Your task to perform on an android device: Search for "lg ultragear" on target.com, select the first entry, and add it to the cart. Image 0: 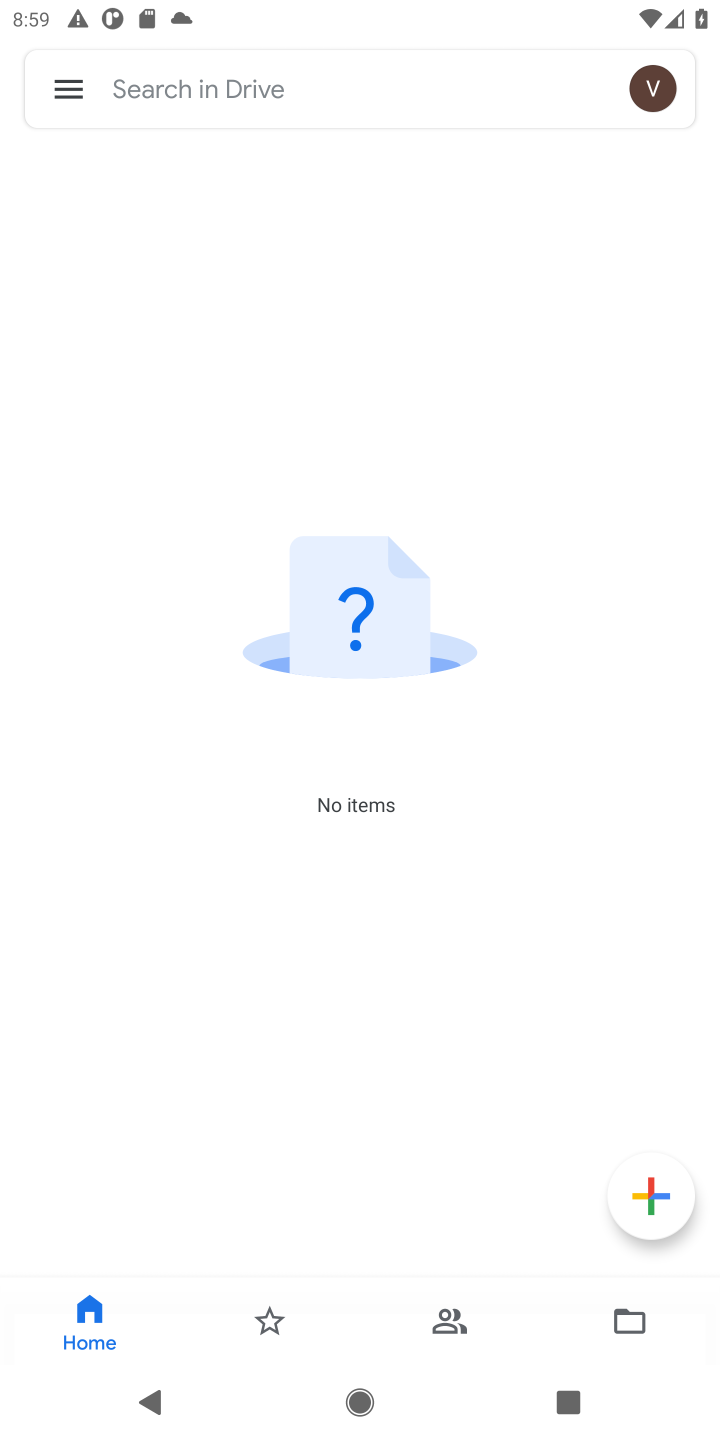
Step 0: press home button
Your task to perform on an android device: Search for "lg ultragear" on target.com, select the first entry, and add it to the cart. Image 1: 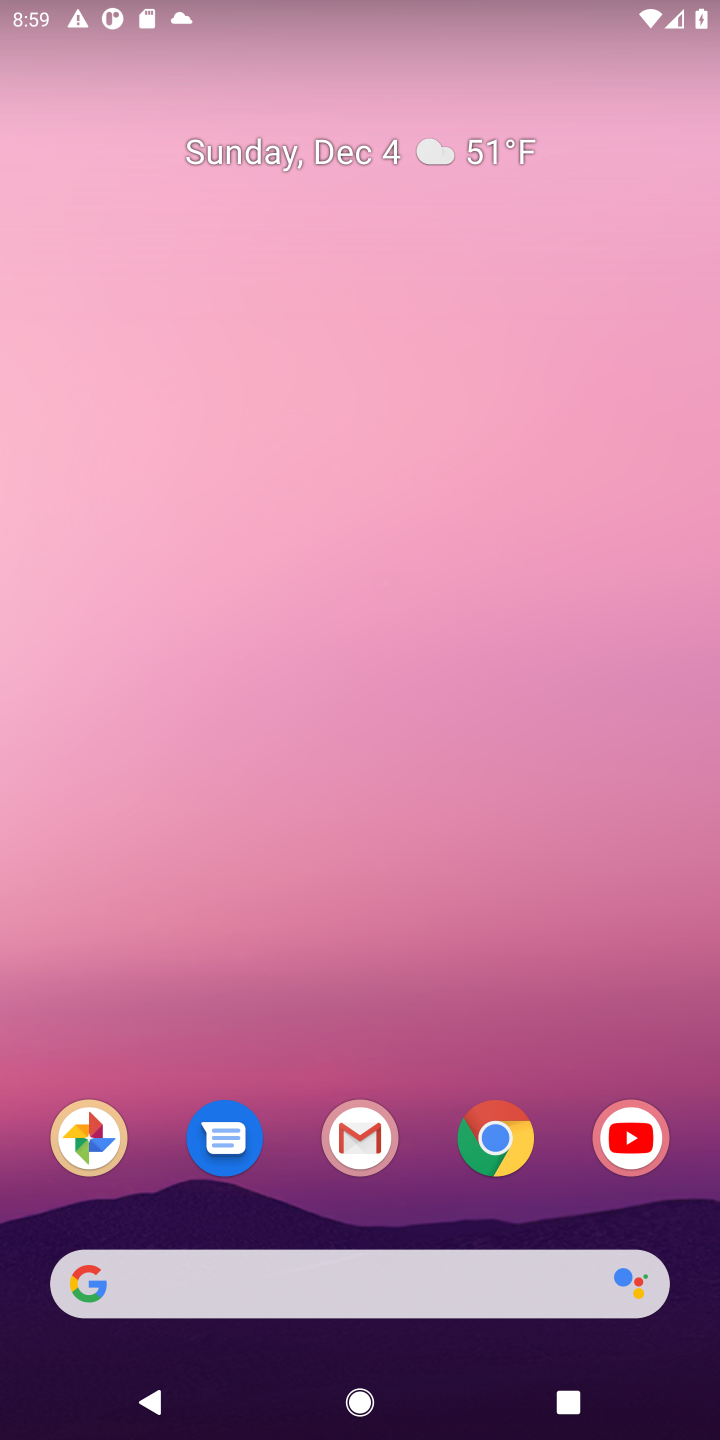
Step 1: click (504, 1130)
Your task to perform on an android device: Search for "lg ultragear" on target.com, select the first entry, and add it to the cart. Image 2: 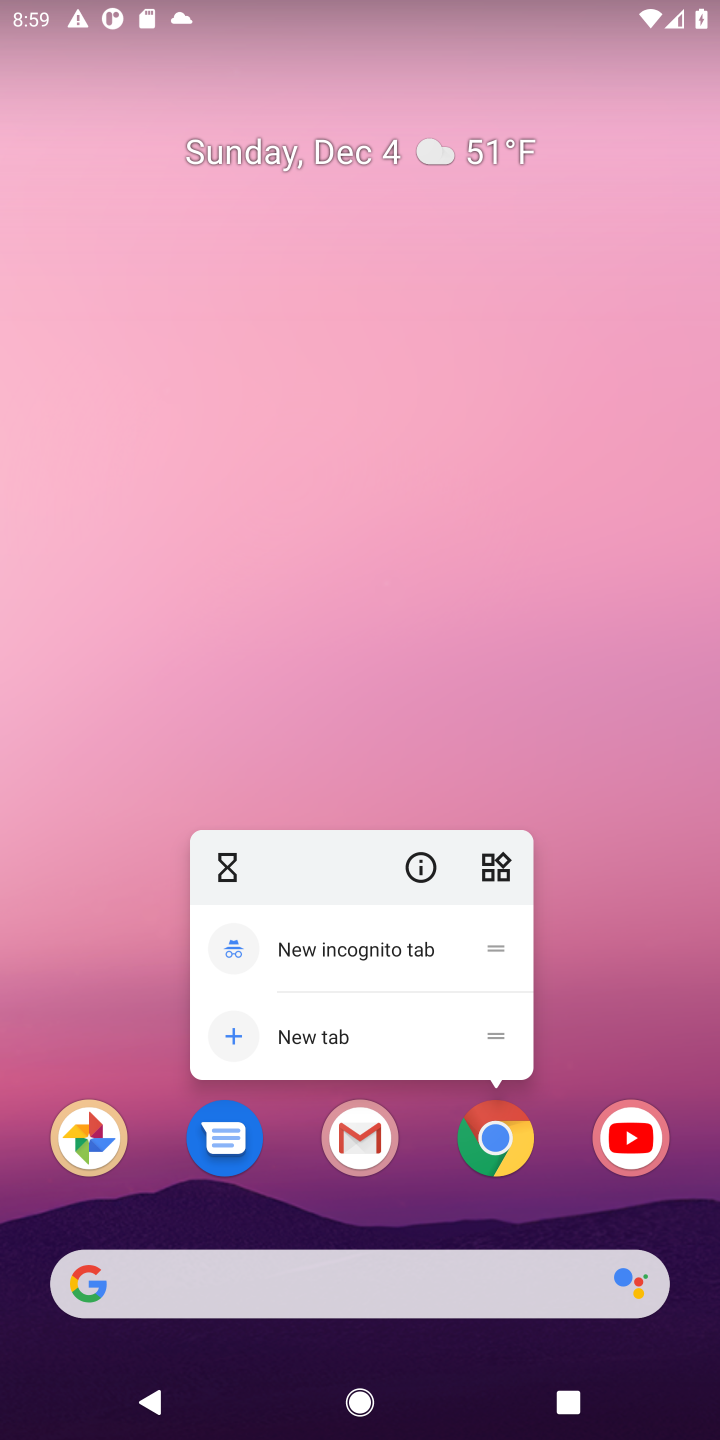
Step 2: click (504, 1130)
Your task to perform on an android device: Search for "lg ultragear" on target.com, select the first entry, and add it to the cart. Image 3: 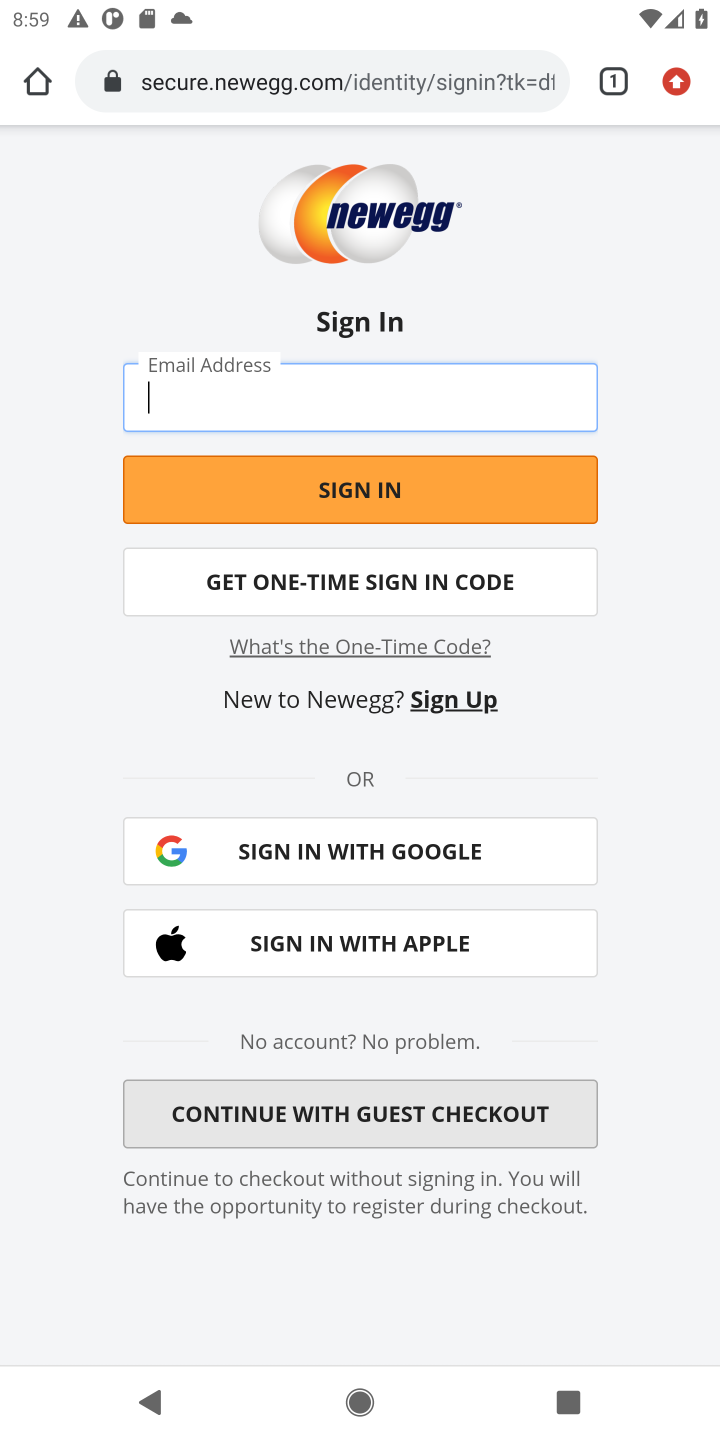
Step 3: click (385, 79)
Your task to perform on an android device: Search for "lg ultragear" on target.com, select the first entry, and add it to the cart. Image 4: 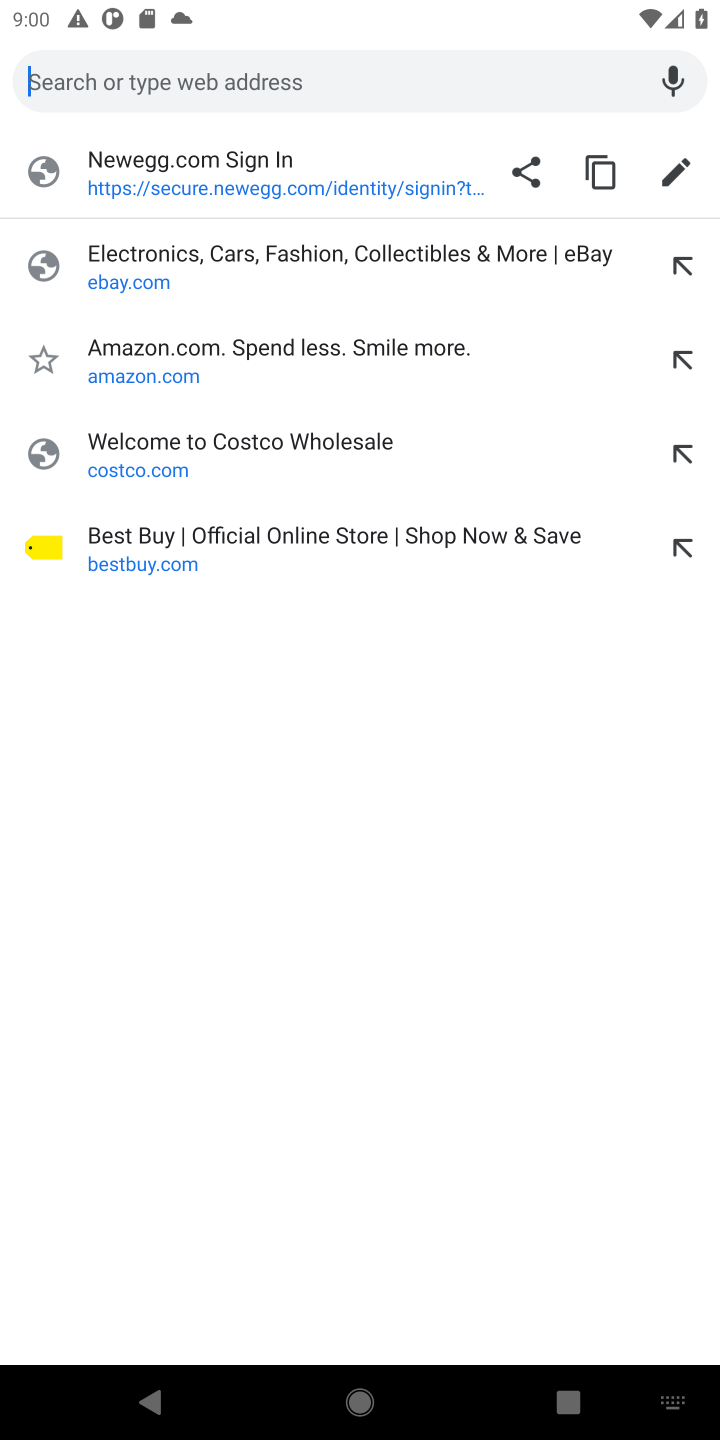
Step 4: type "target.com"
Your task to perform on an android device: Search for "lg ultragear" on target.com, select the first entry, and add it to the cart. Image 5: 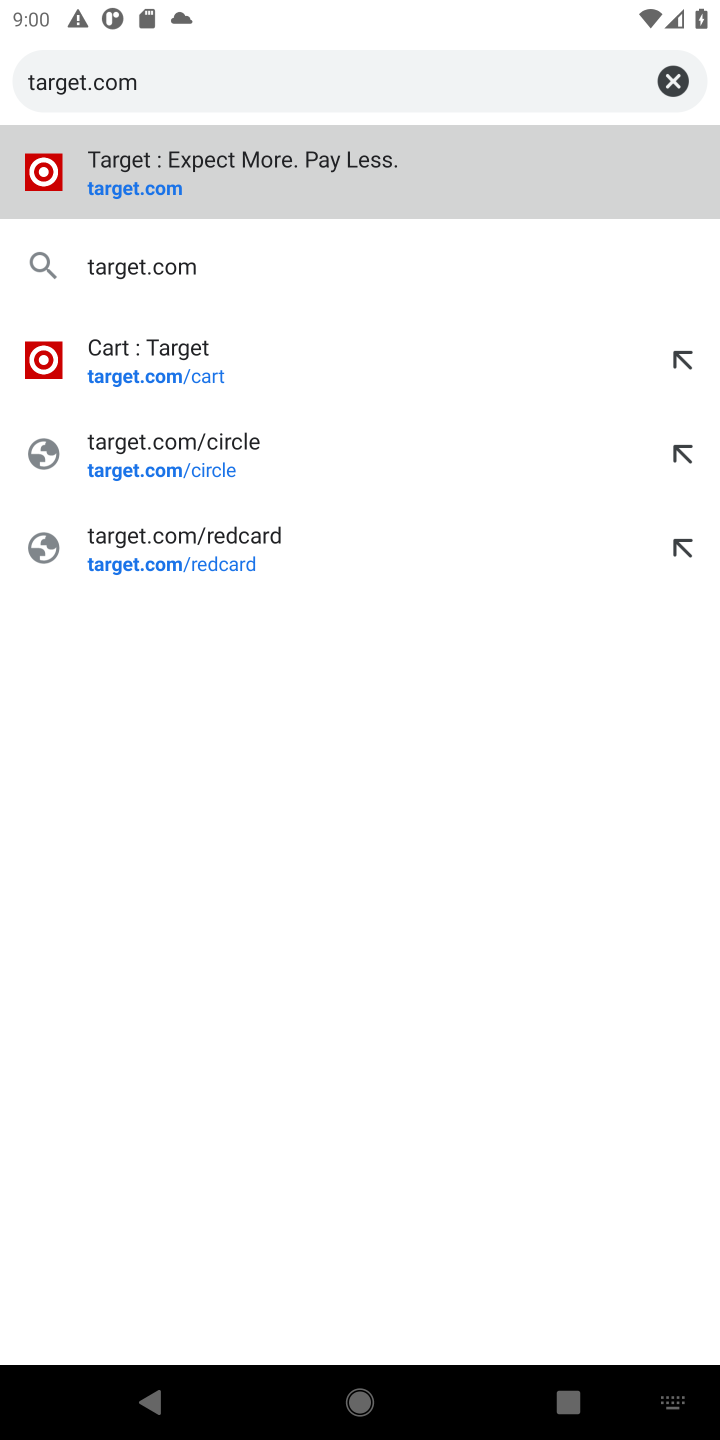
Step 5: press enter
Your task to perform on an android device: Search for "lg ultragear" on target.com, select the first entry, and add it to the cart. Image 6: 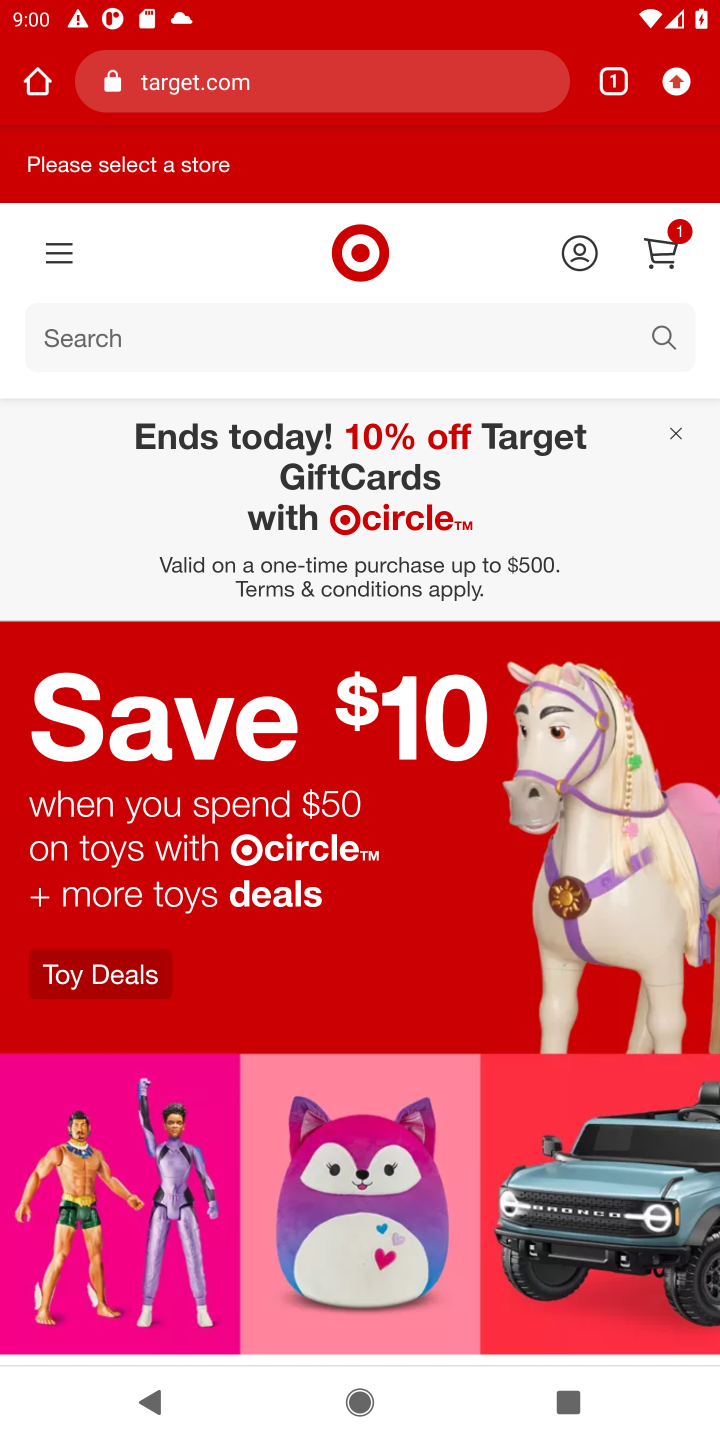
Step 6: click (675, 335)
Your task to perform on an android device: Search for "lg ultragear" on target.com, select the first entry, and add it to the cart. Image 7: 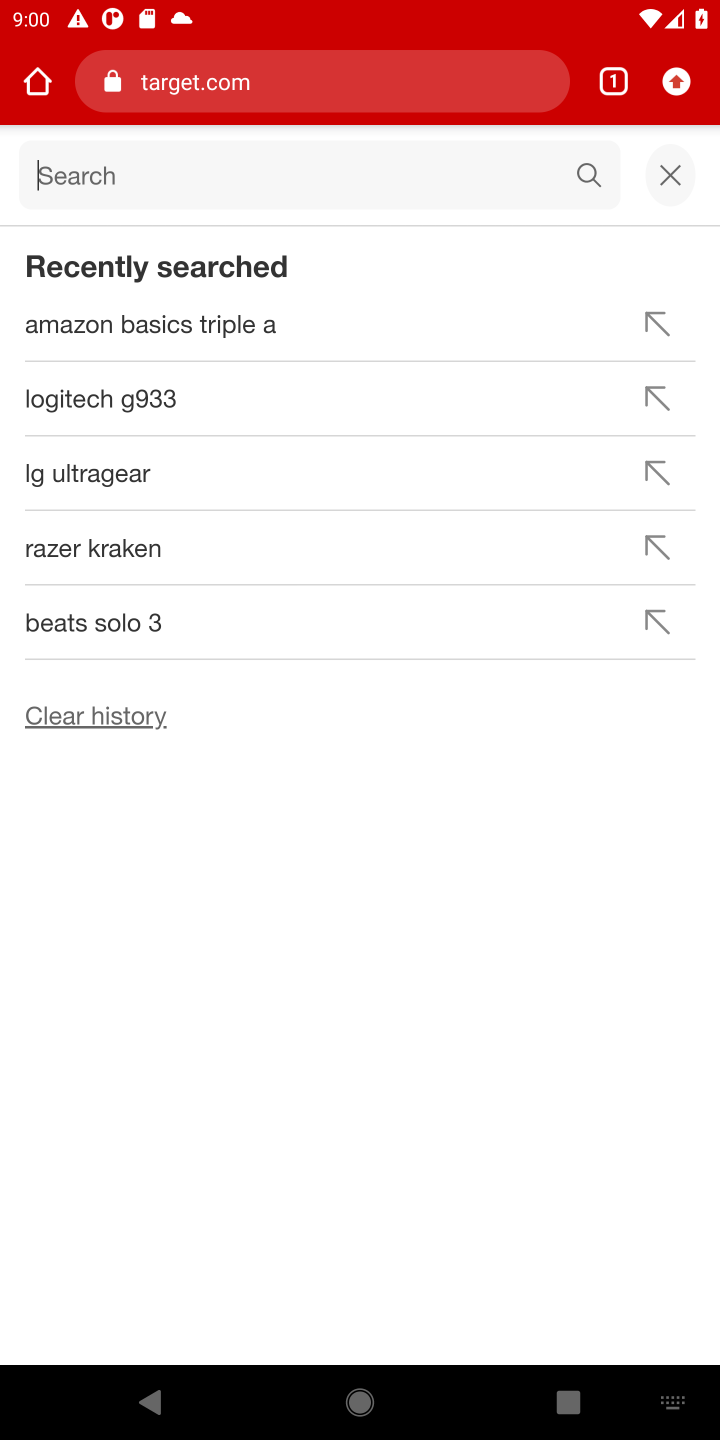
Step 7: type "lg ultragear"
Your task to perform on an android device: Search for "lg ultragear" on target.com, select the first entry, and add it to the cart. Image 8: 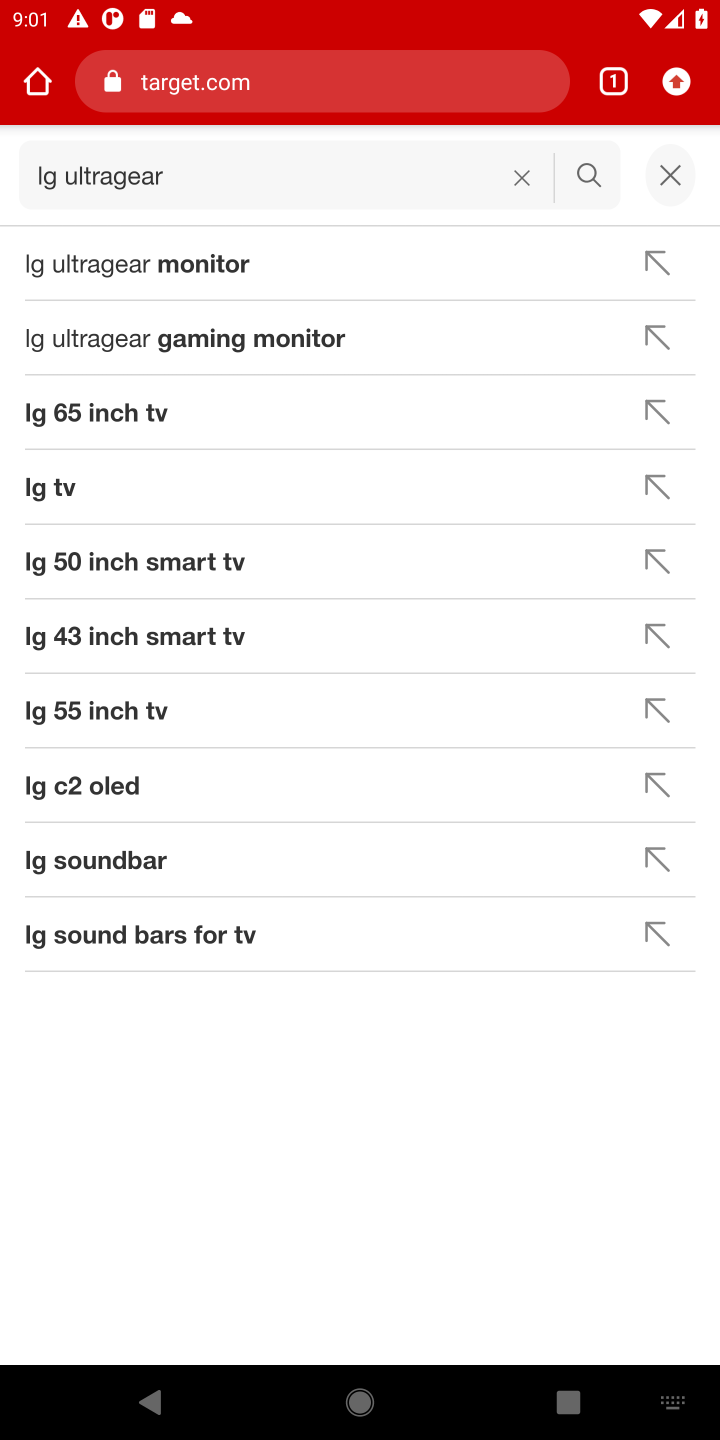
Step 8: click (593, 180)
Your task to perform on an android device: Search for "lg ultragear" on target.com, select the first entry, and add it to the cart. Image 9: 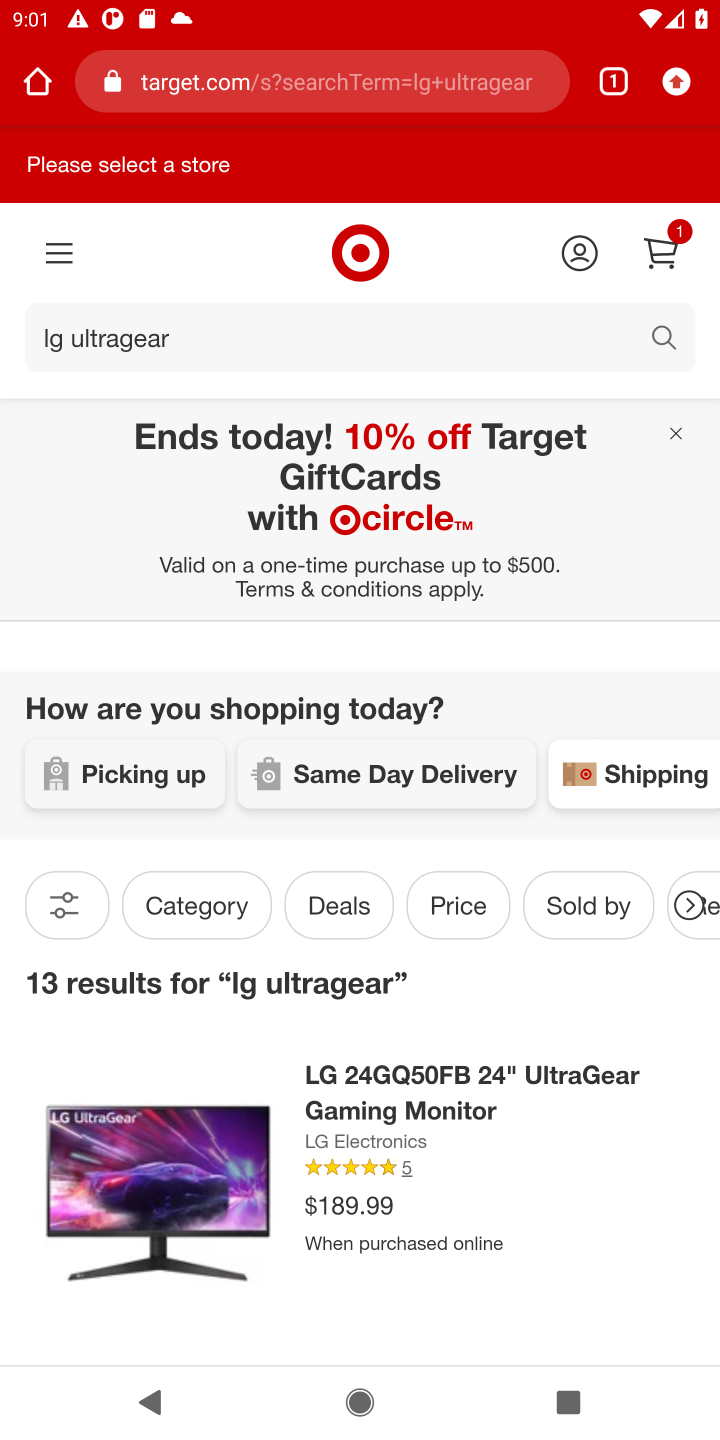
Step 9: drag from (531, 1146) to (516, 639)
Your task to perform on an android device: Search for "lg ultragear" on target.com, select the first entry, and add it to the cart. Image 10: 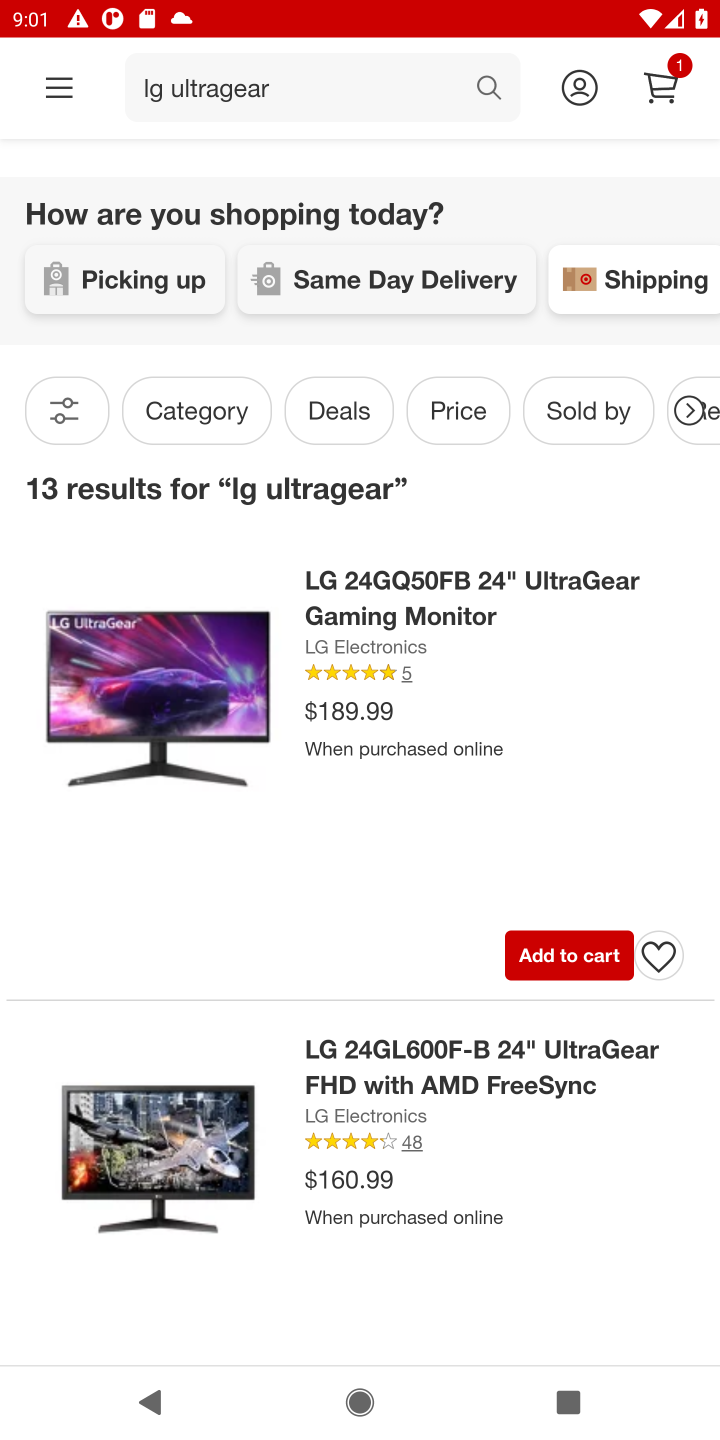
Step 10: click (152, 677)
Your task to perform on an android device: Search for "lg ultragear" on target.com, select the first entry, and add it to the cart. Image 11: 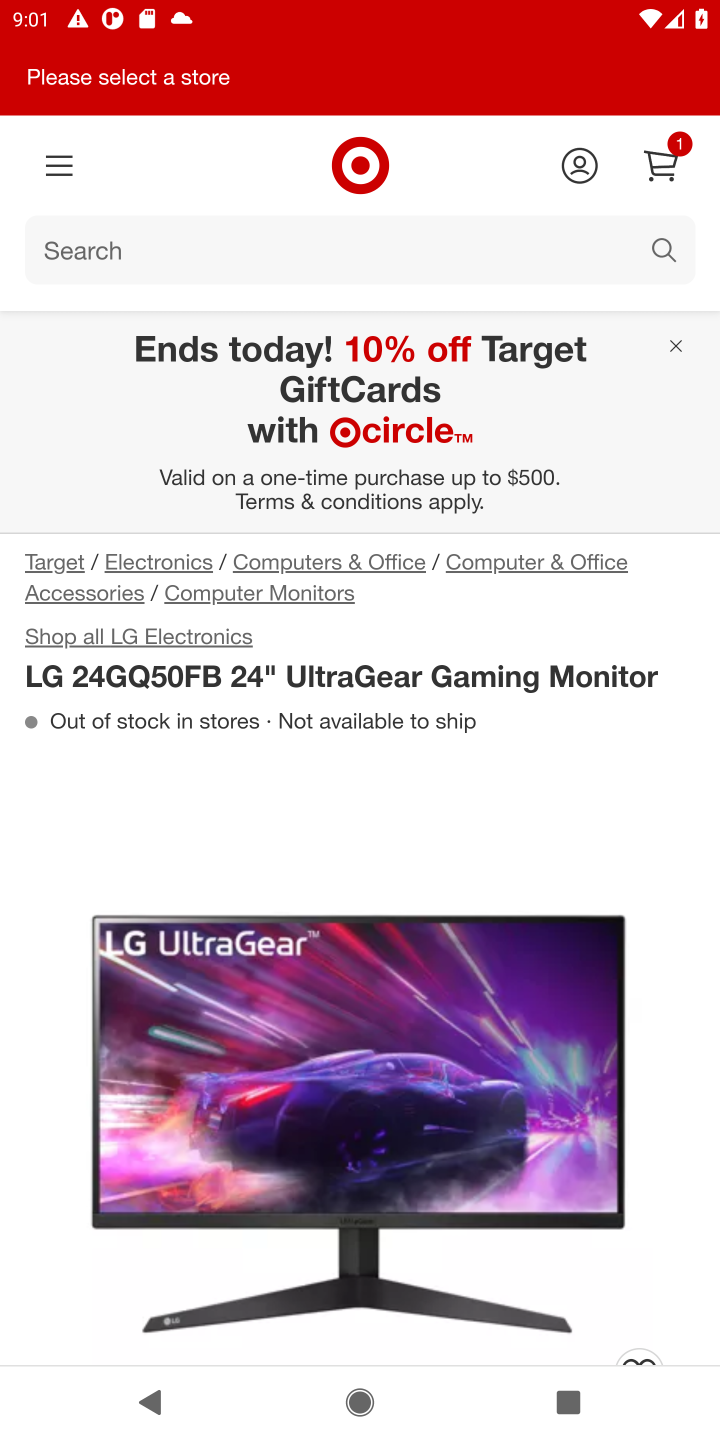
Step 11: drag from (555, 764) to (557, 124)
Your task to perform on an android device: Search for "lg ultragear" on target.com, select the first entry, and add it to the cart. Image 12: 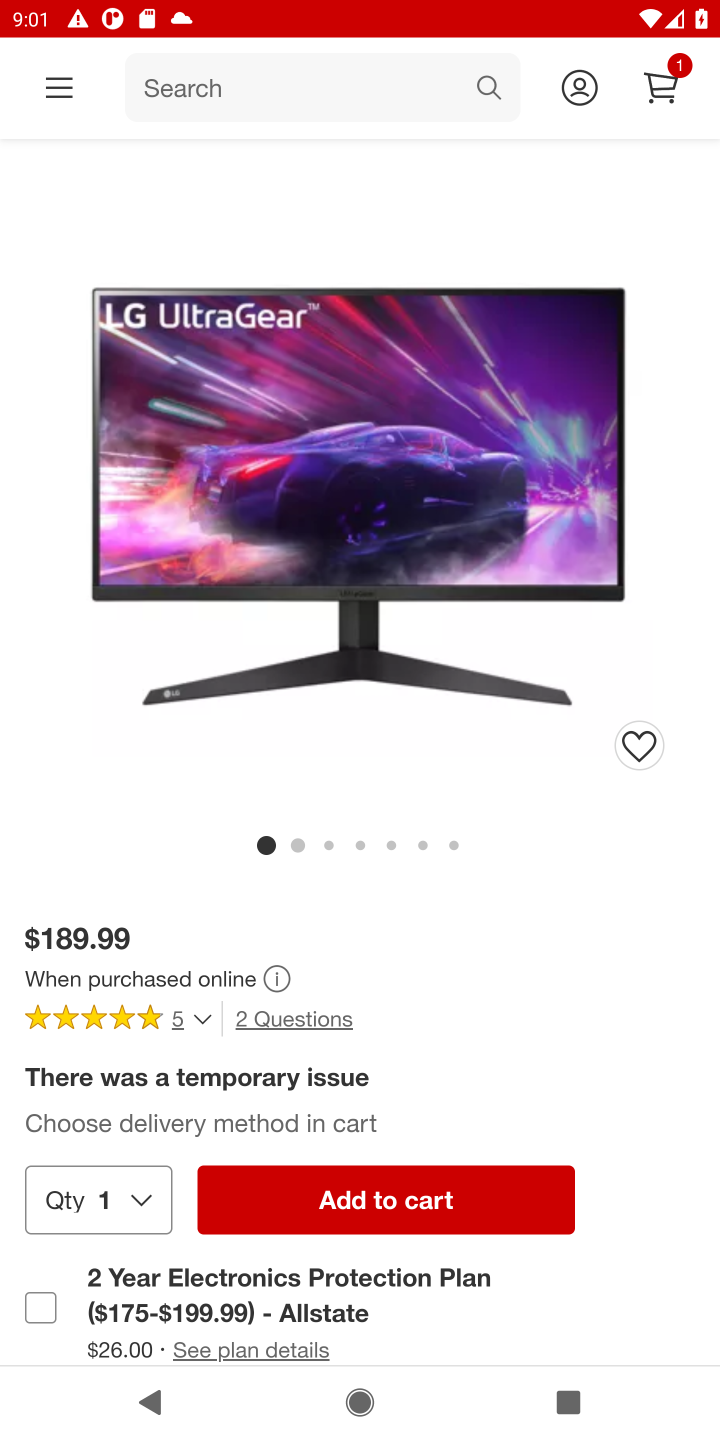
Step 12: click (443, 1200)
Your task to perform on an android device: Search for "lg ultragear" on target.com, select the first entry, and add it to the cart. Image 13: 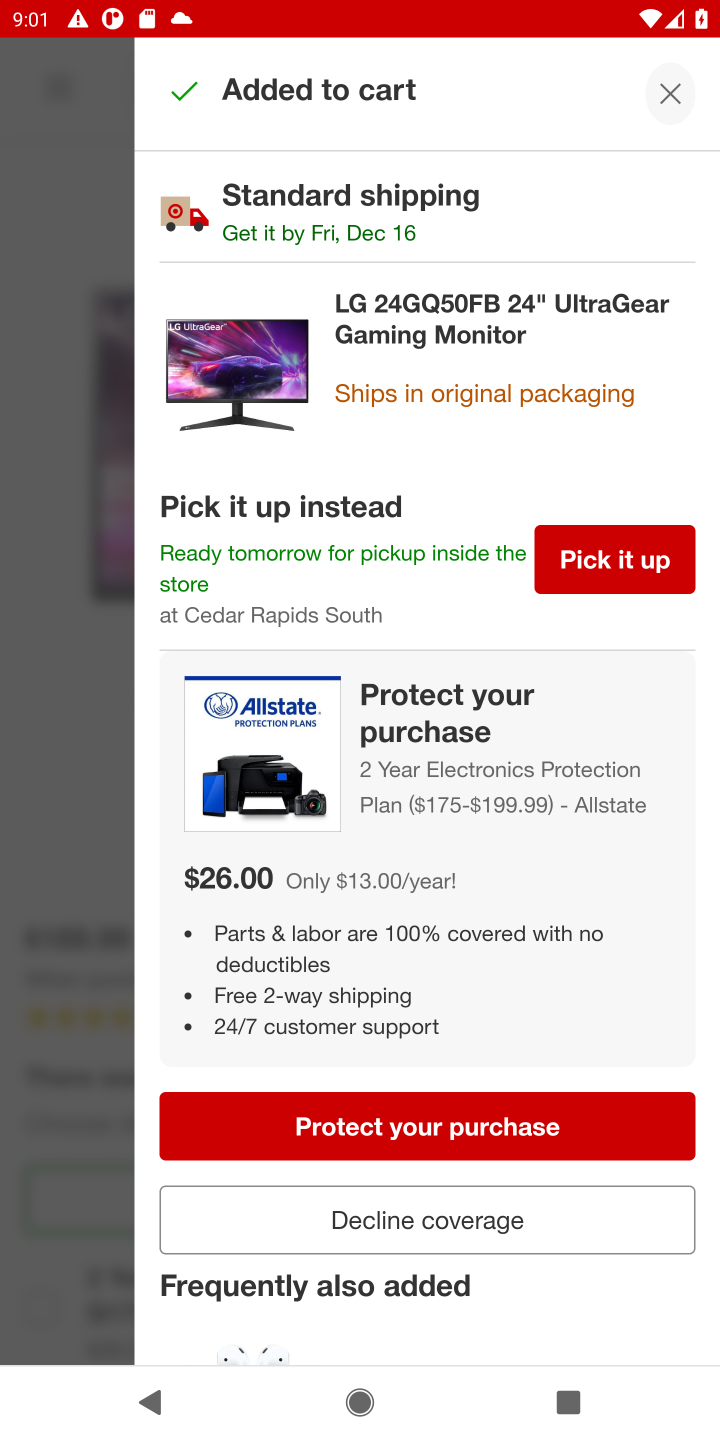
Step 13: task complete